Your task to perform on an android device: Open Wikipedia Image 0: 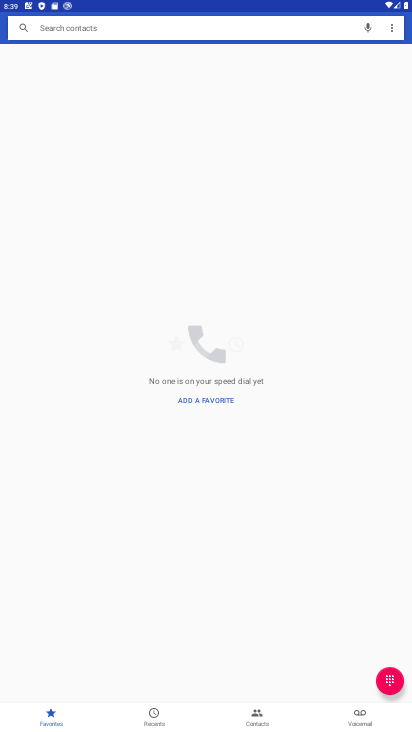
Step 0: drag from (259, 602) to (321, 303)
Your task to perform on an android device: Open Wikipedia Image 1: 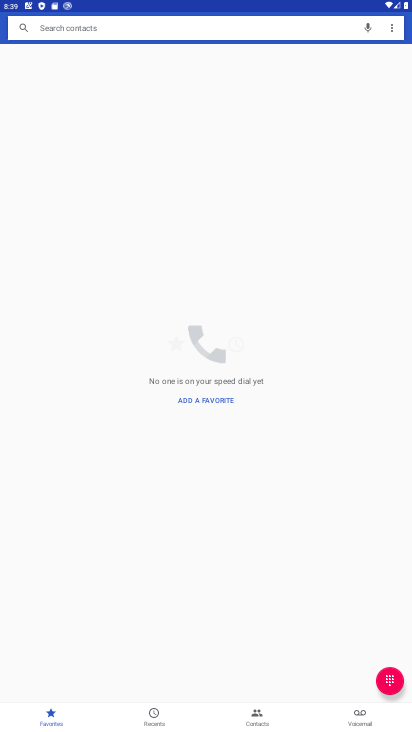
Step 1: press home button
Your task to perform on an android device: Open Wikipedia Image 2: 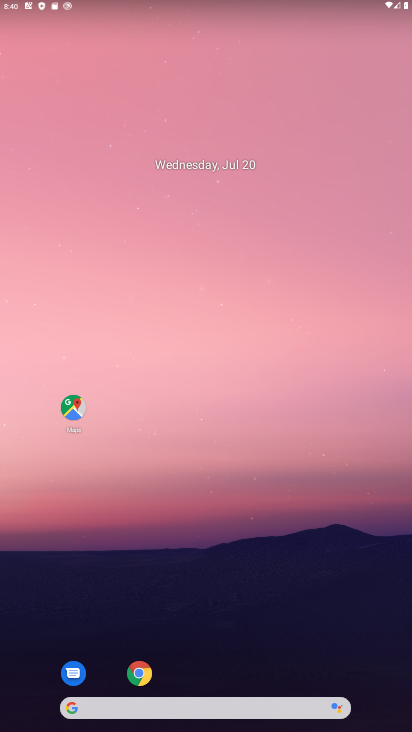
Step 2: drag from (195, 590) to (306, 209)
Your task to perform on an android device: Open Wikipedia Image 3: 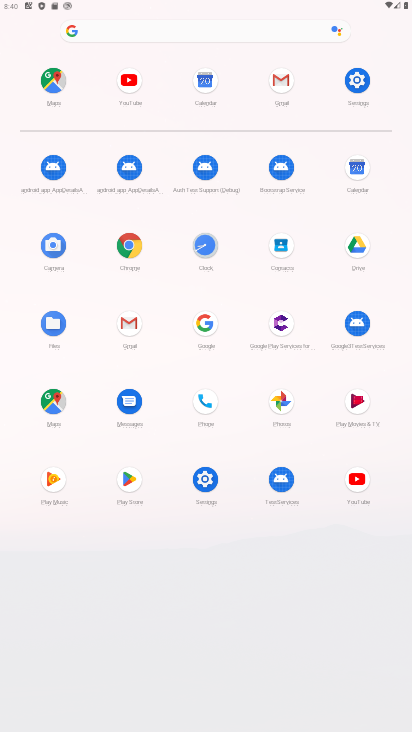
Step 3: click (205, 27)
Your task to perform on an android device: Open Wikipedia Image 4: 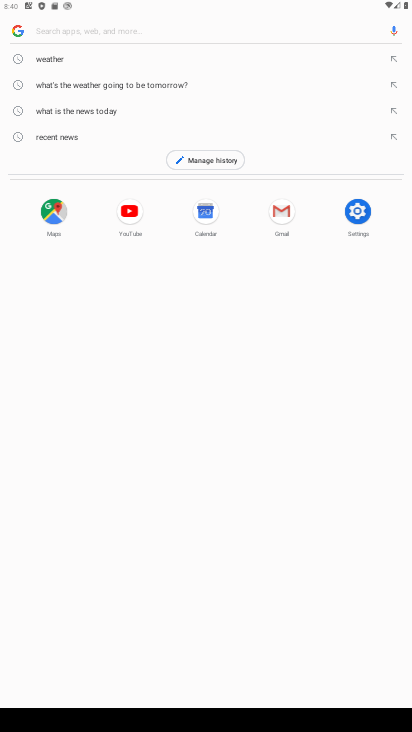
Step 4: type "Wikipedia"
Your task to perform on an android device: Open Wikipedia Image 5: 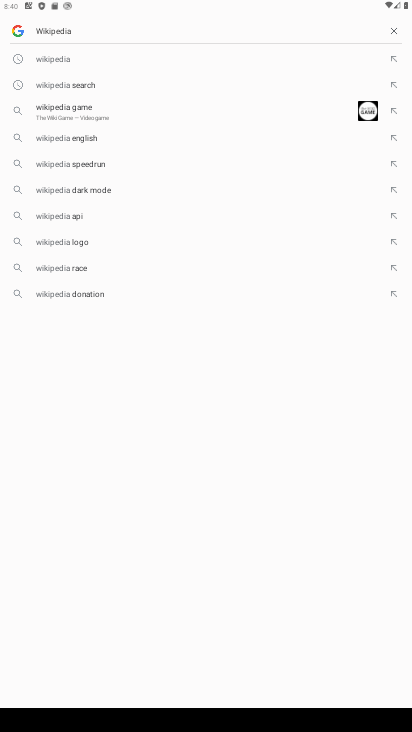
Step 5: click (68, 60)
Your task to perform on an android device: Open Wikipedia Image 6: 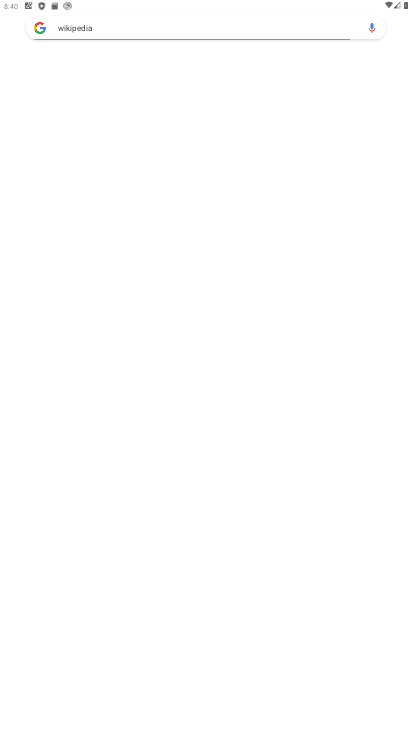
Step 6: drag from (260, 601) to (199, 115)
Your task to perform on an android device: Open Wikipedia Image 7: 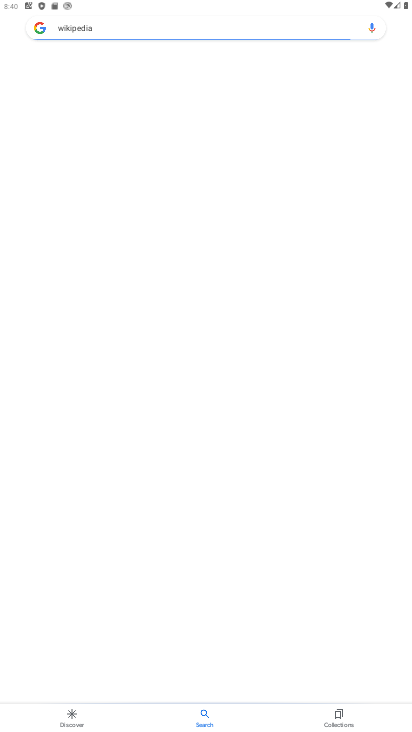
Step 7: drag from (182, 508) to (152, 172)
Your task to perform on an android device: Open Wikipedia Image 8: 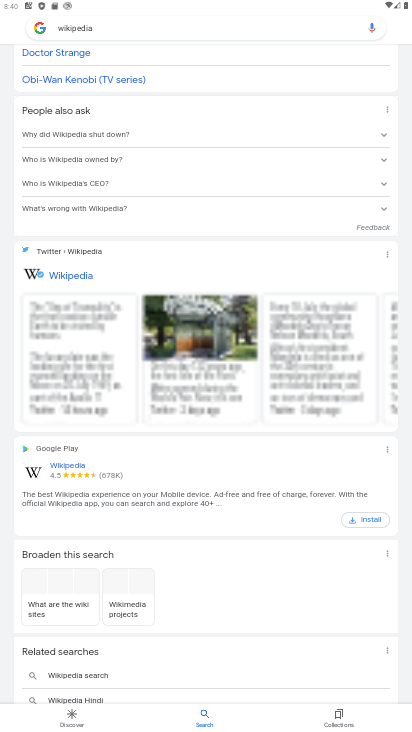
Step 8: drag from (211, 501) to (271, 157)
Your task to perform on an android device: Open Wikipedia Image 9: 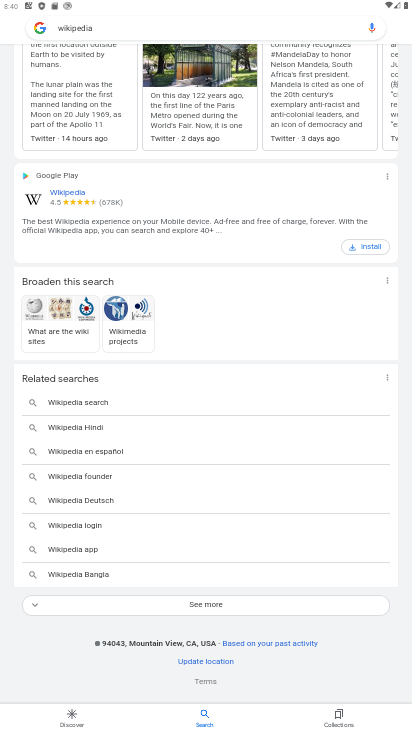
Step 9: drag from (258, 544) to (271, 130)
Your task to perform on an android device: Open Wikipedia Image 10: 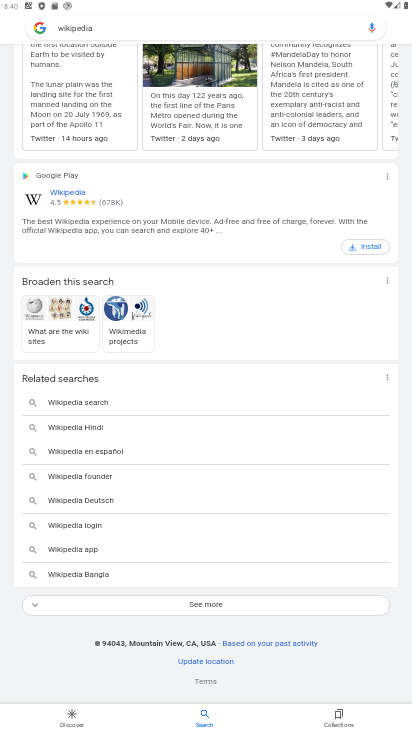
Step 10: drag from (215, 257) to (407, 200)
Your task to perform on an android device: Open Wikipedia Image 11: 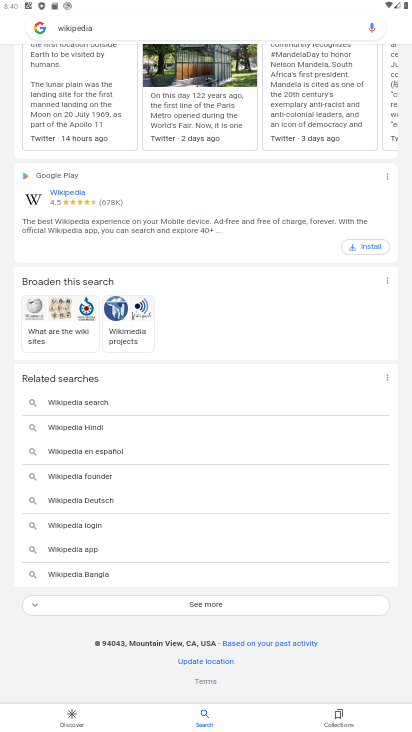
Step 11: drag from (149, 226) to (268, 720)
Your task to perform on an android device: Open Wikipedia Image 12: 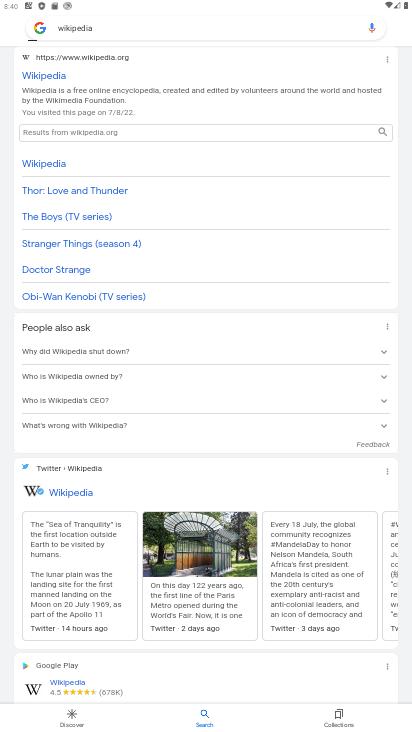
Step 12: drag from (210, 191) to (319, 708)
Your task to perform on an android device: Open Wikipedia Image 13: 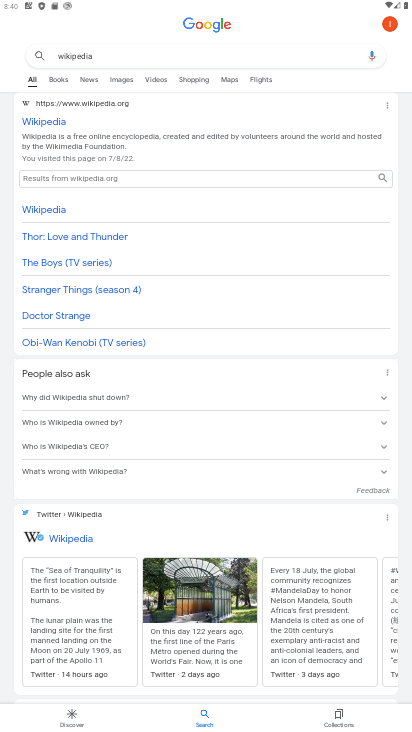
Step 13: click (25, 125)
Your task to perform on an android device: Open Wikipedia Image 14: 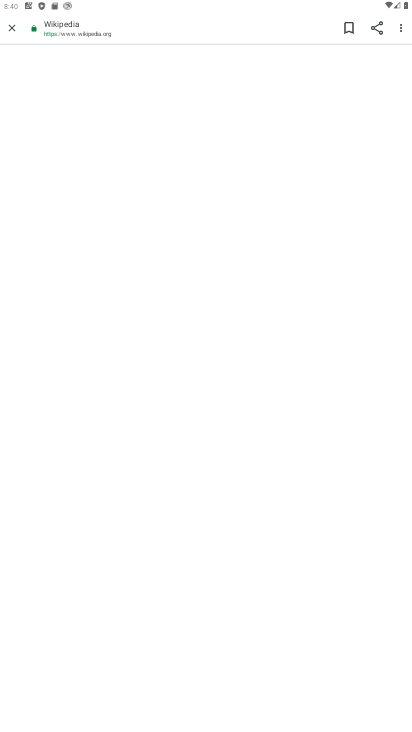
Step 14: task complete